Your task to perform on an android device: Check the weather Image 0: 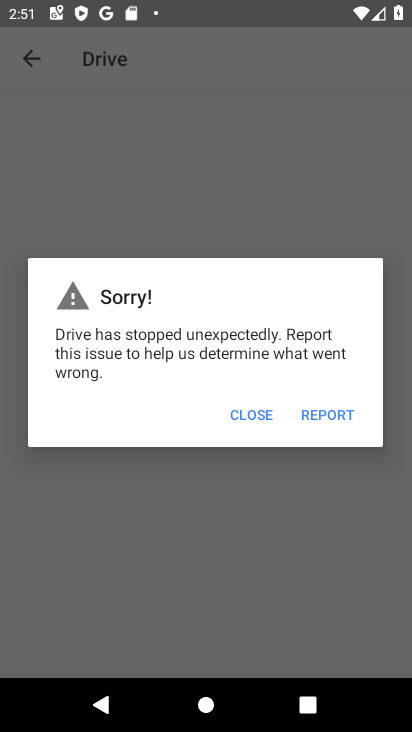
Step 0: press home button
Your task to perform on an android device: Check the weather Image 1: 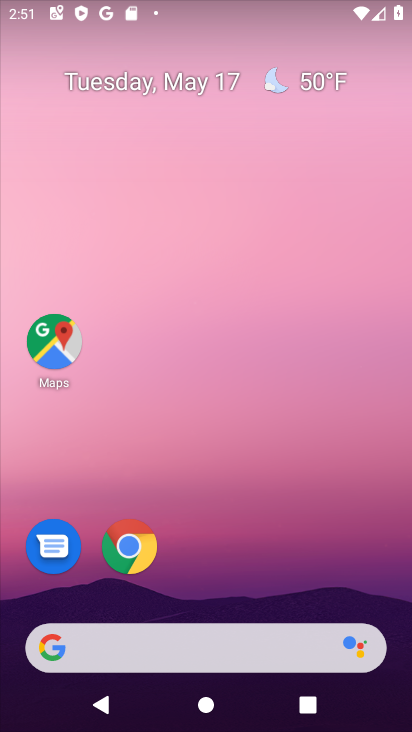
Step 1: click (318, 83)
Your task to perform on an android device: Check the weather Image 2: 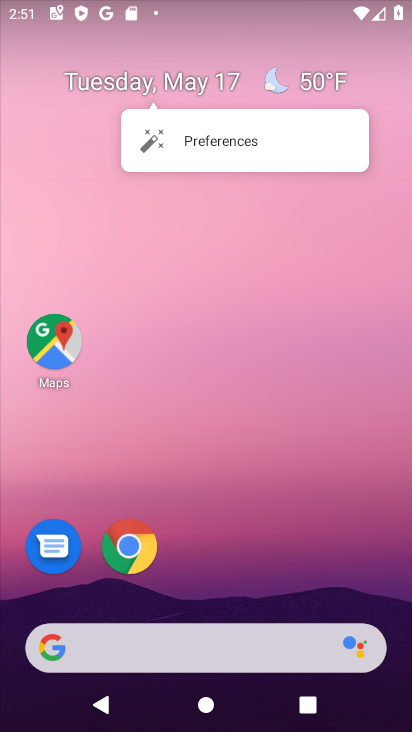
Step 2: click (318, 83)
Your task to perform on an android device: Check the weather Image 3: 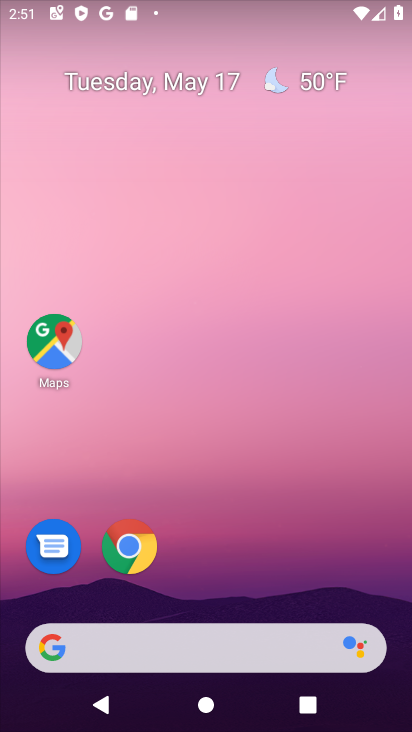
Step 3: click (318, 83)
Your task to perform on an android device: Check the weather Image 4: 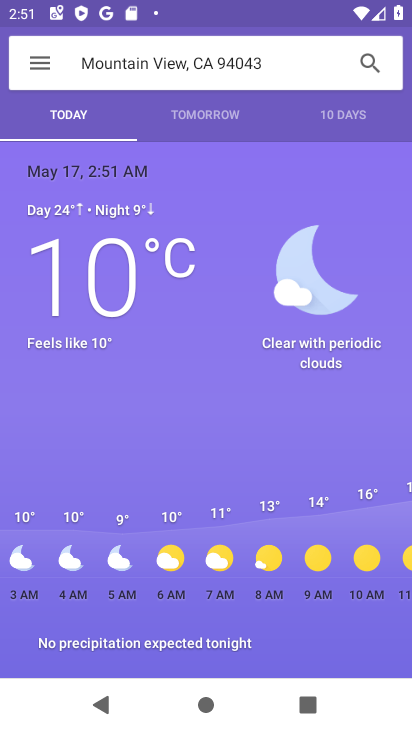
Step 4: task complete